Your task to perform on an android device: Do I have any events tomorrow? Image 0: 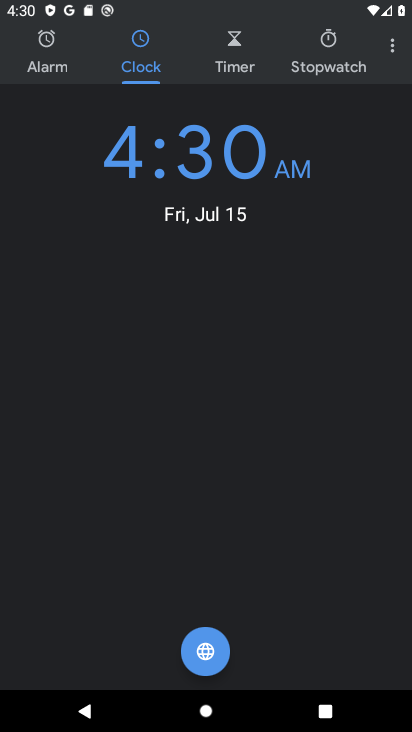
Step 0: press home button
Your task to perform on an android device: Do I have any events tomorrow? Image 1: 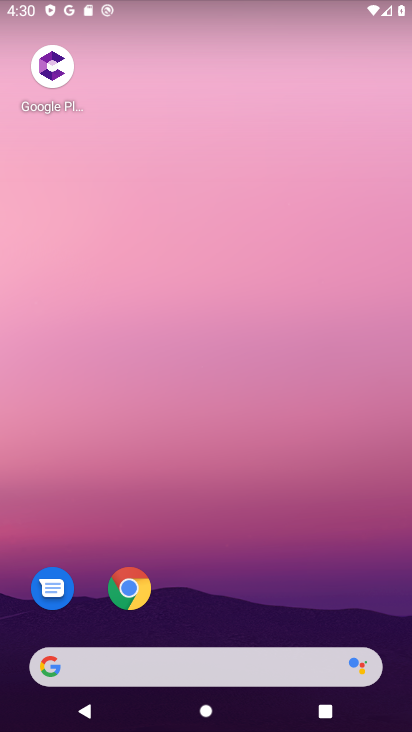
Step 1: drag from (238, 585) to (238, 84)
Your task to perform on an android device: Do I have any events tomorrow? Image 2: 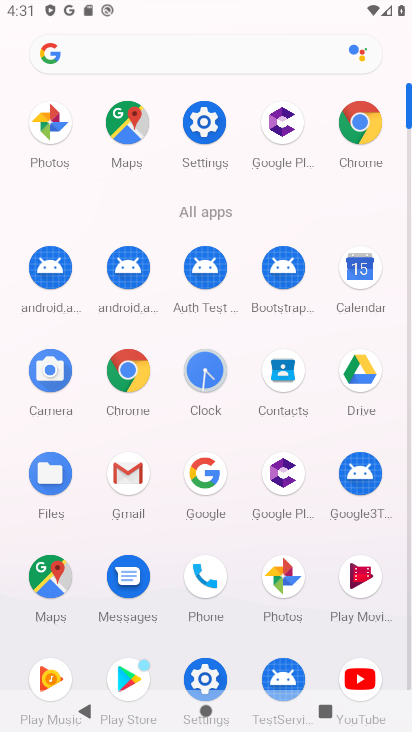
Step 2: click (363, 273)
Your task to perform on an android device: Do I have any events tomorrow? Image 3: 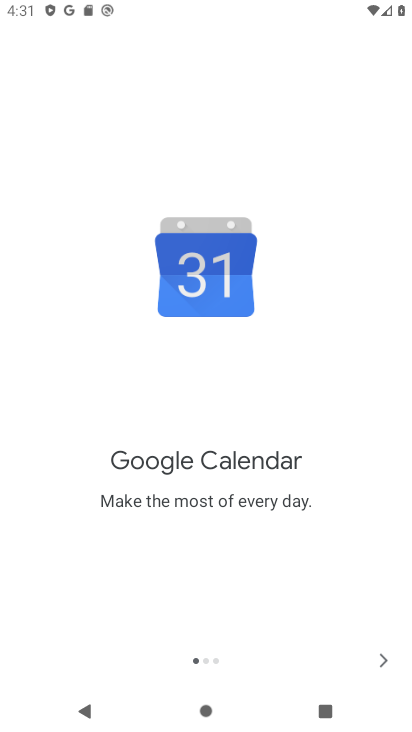
Step 3: click (376, 657)
Your task to perform on an android device: Do I have any events tomorrow? Image 4: 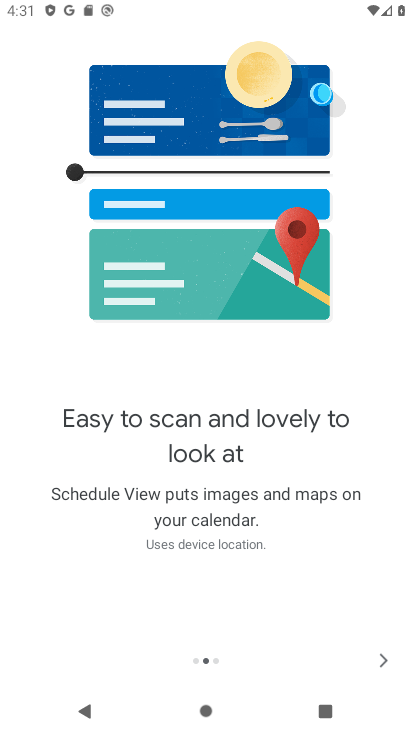
Step 4: click (376, 657)
Your task to perform on an android device: Do I have any events tomorrow? Image 5: 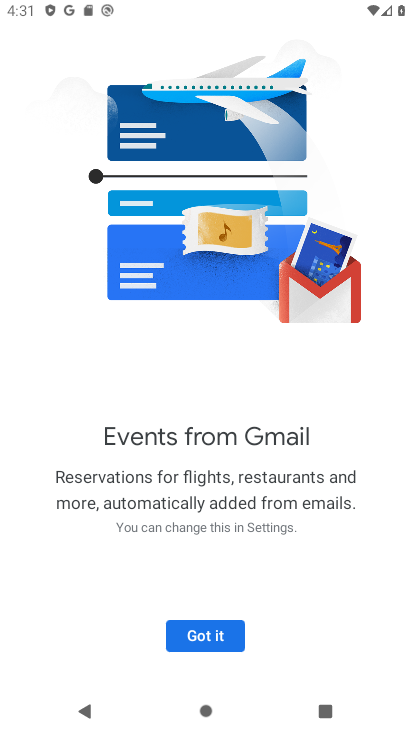
Step 5: click (216, 630)
Your task to perform on an android device: Do I have any events tomorrow? Image 6: 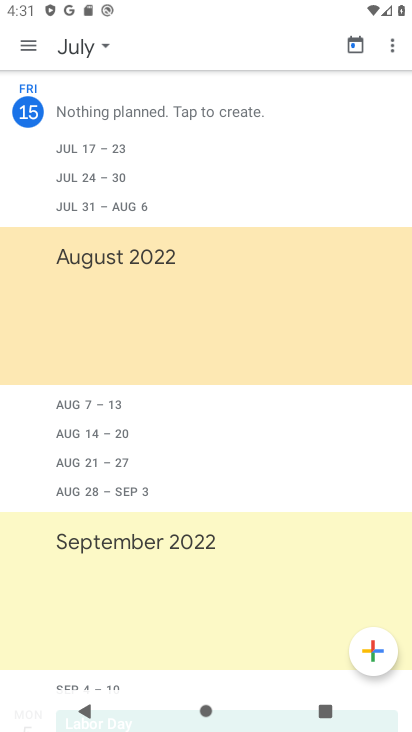
Step 6: click (72, 46)
Your task to perform on an android device: Do I have any events tomorrow? Image 7: 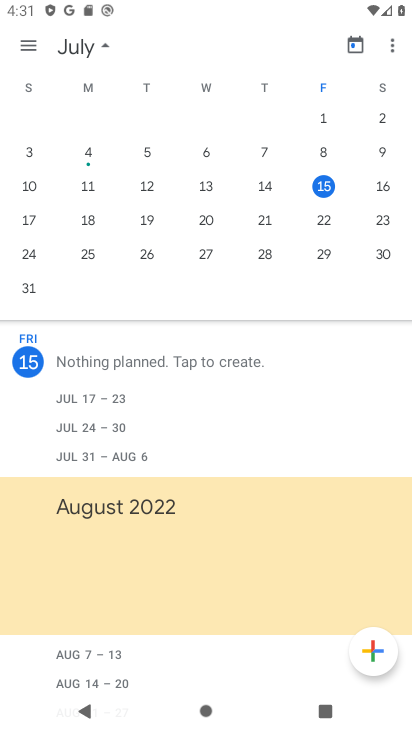
Step 7: click (382, 183)
Your task to perform on an android device: Do I have any events tomorrow? Image 8: 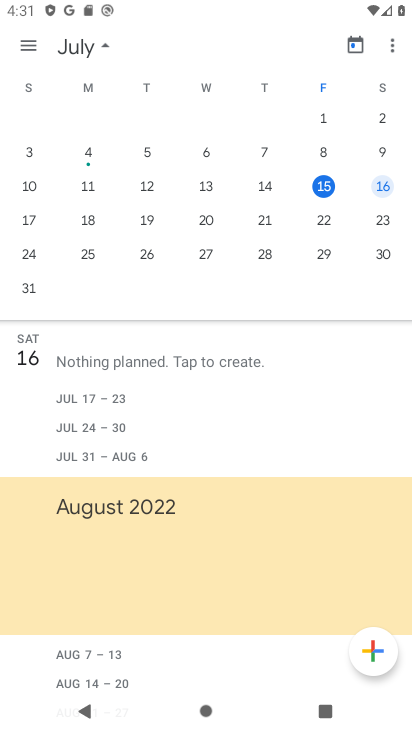
Step 8: task complete